Your task to perform on an android device: Set the phone to "Do not disturb". Image 0: 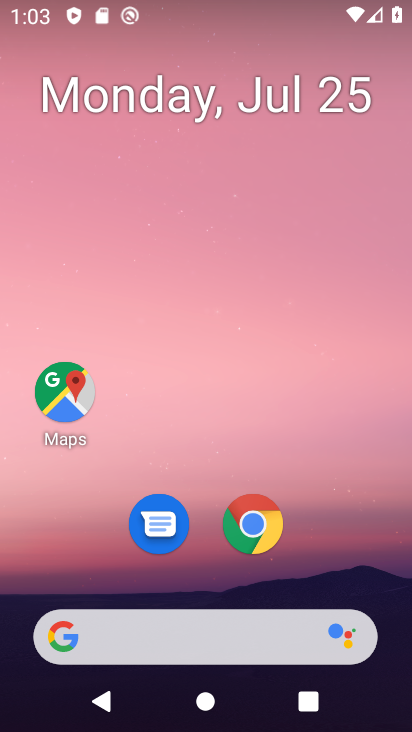
Step 0: drag from (225, 624) to (384, 87)
Your task to perform on an android device: Set the phone to "Do not disturb". Image 1: 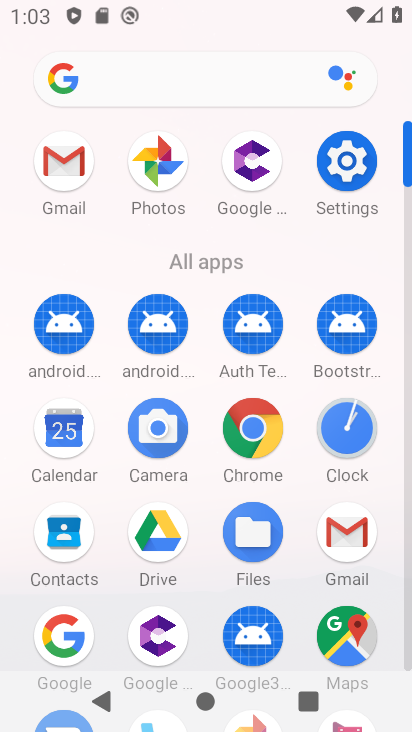
Step 1: click (338, 159)
Your task to perform on an android device: Set the phone to "Do not disturb". Image 2: 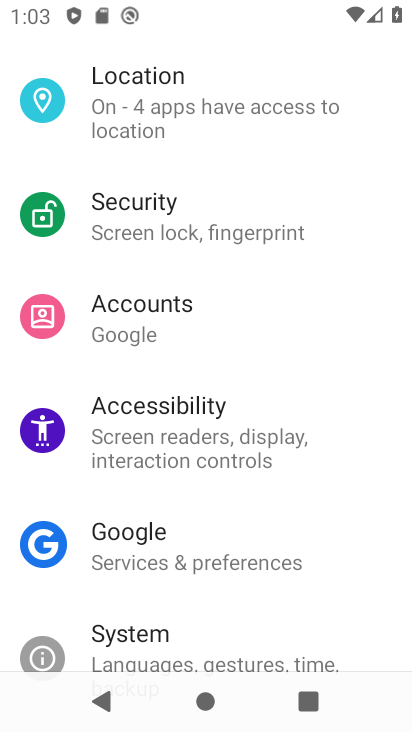
Step 2: drag from (291, 157) to (218, 647)
Your task to perform on an android device: Set the phone to "Do not disturb". Image 3: 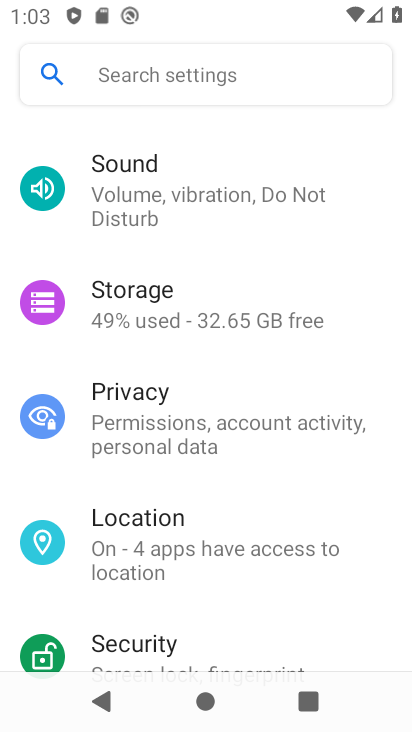
Step 3: click (176, 192)
Your task to perform on an android device: Set the phone to "Do not disturb". Image 4: 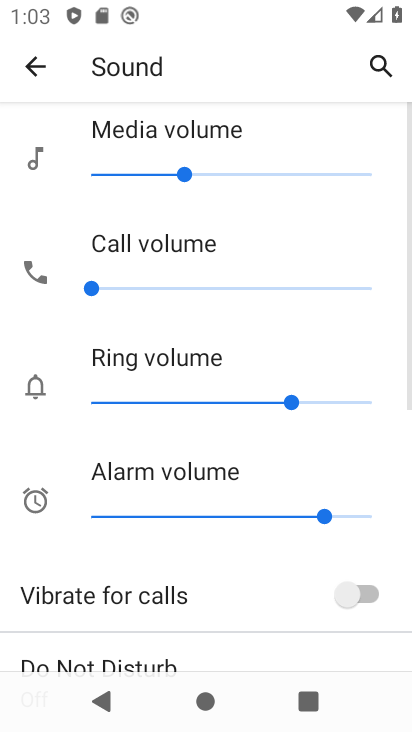
Step 4: drag from (200, 614) to (361, 181)
Your task to perform on an android device: Set the phone to "Do not disturb". Image 5: 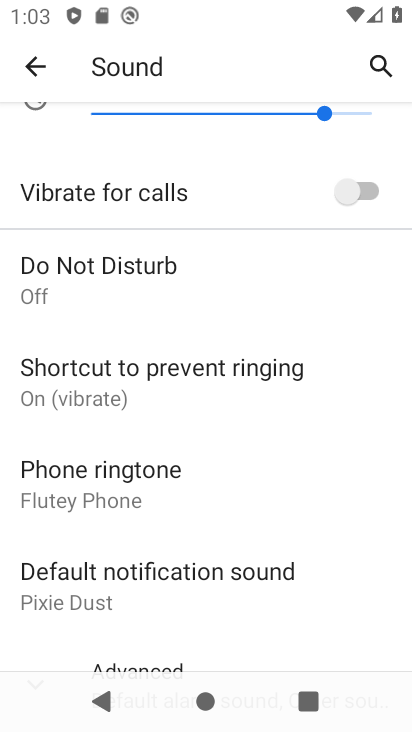
Step 5: click (106, 275)
Your task to perform on an android device: Set the phone to "Do not disturb". Image 6: 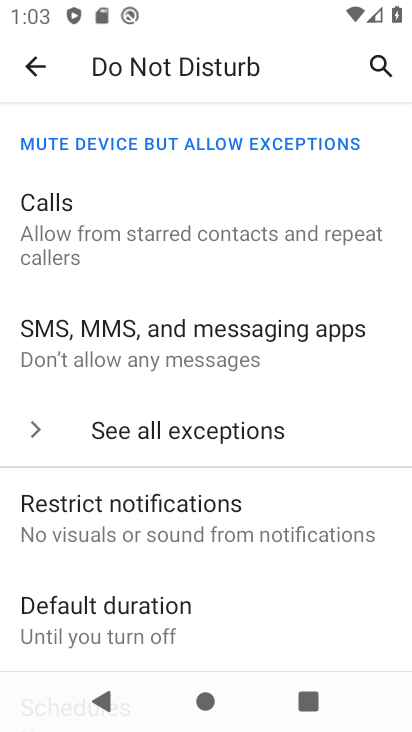
Step 6: drag from (236, 608) to (324, 167)
Your task to perform on an android device: Set the phone to "Do not disturb". Image 7: 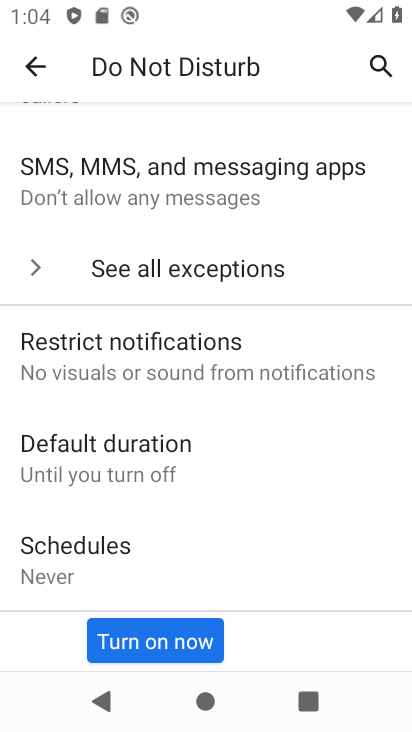
Step 7: click (150, 662)
Your task to perform on an android device: Set the phone to "Do not disturb". Image 8: 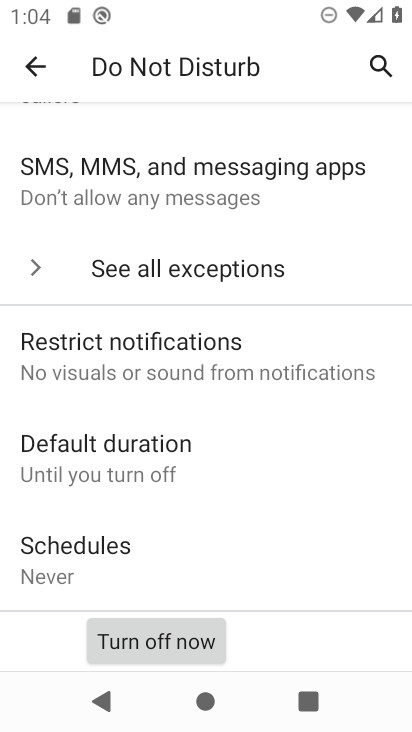
Step 8: task complete